Your task to perform on an android device: Open Yahoo.com Image 0: 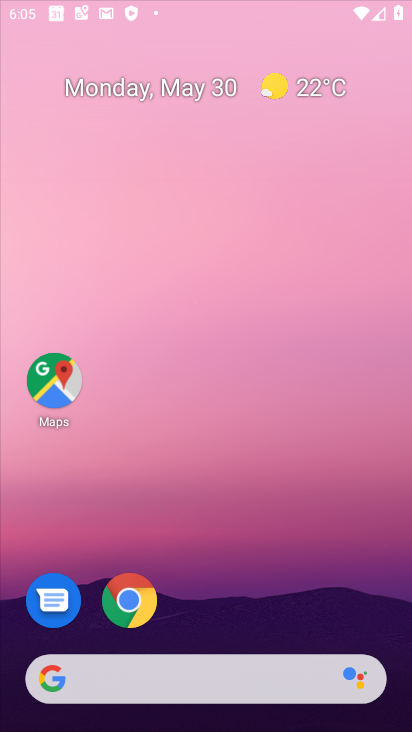
Step 0: press home button
Your task to perform on an android device: Open Yahoo.com Image 1: 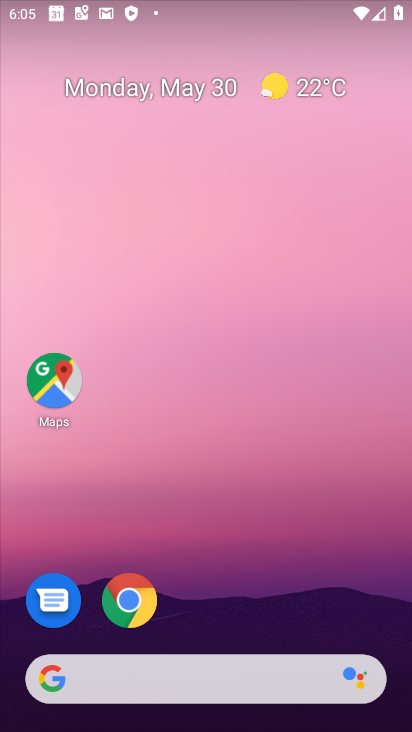
Step 1: click (58, 688)
Your task to perform on an android device: Open Yahoo.com Image 2: 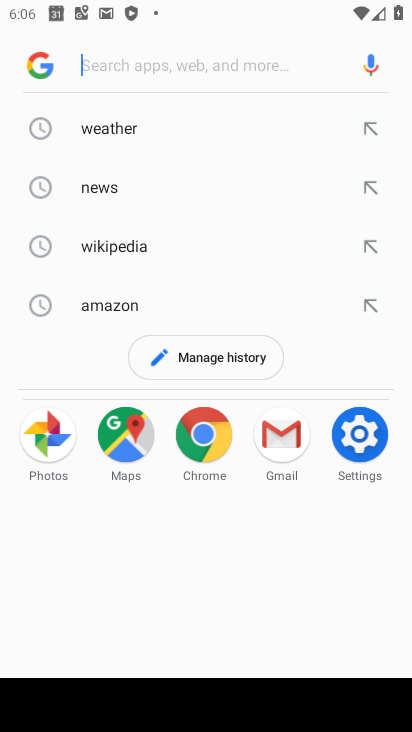
Step 2: type "yahoo.com"
Your task to perform on an android device: Open Yahoo.com Image 3: 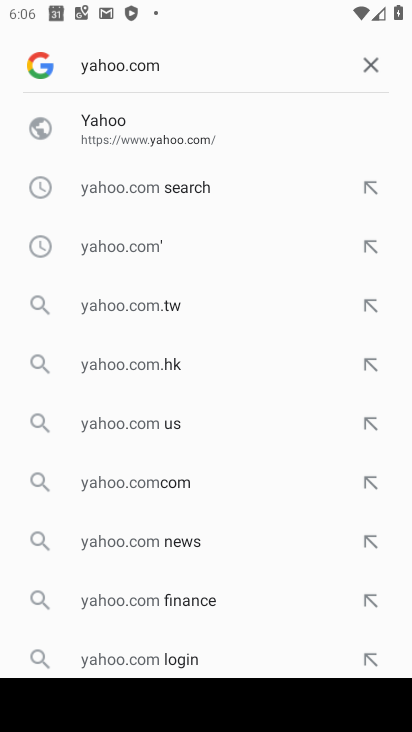
Step 3: click (102, 117)
Your task to perform on an android device: Open Yahoo.com Image 4: 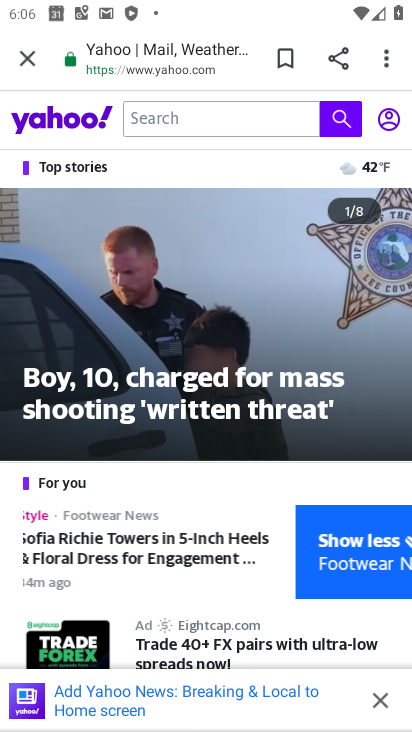
Step 4: task complete